Your task to perform on an android device: toggle sleep mode Image 0: 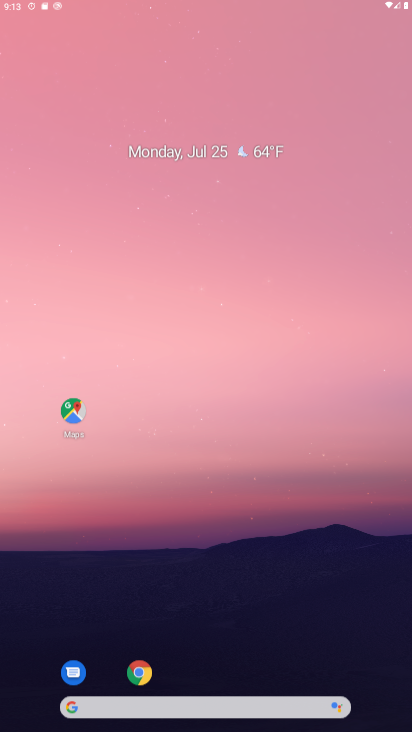
Step 0: press home button
Your task to perform on an android device: toggle sleep mode Image 1: 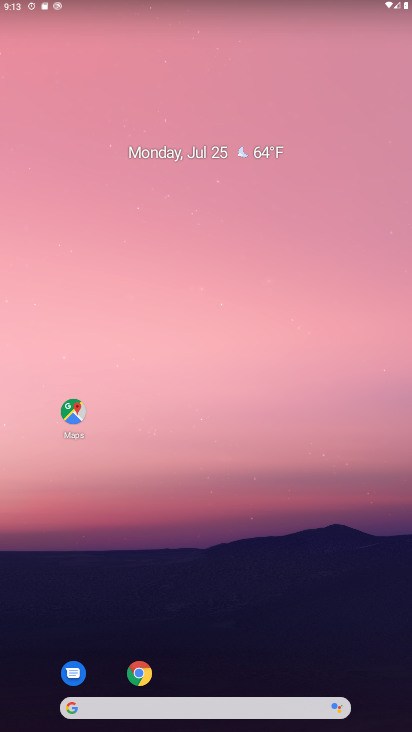
Step 1: drag from (228, 676) to (290, 7)
Your task to perform on an android device: toggle sleep mode Image 2: 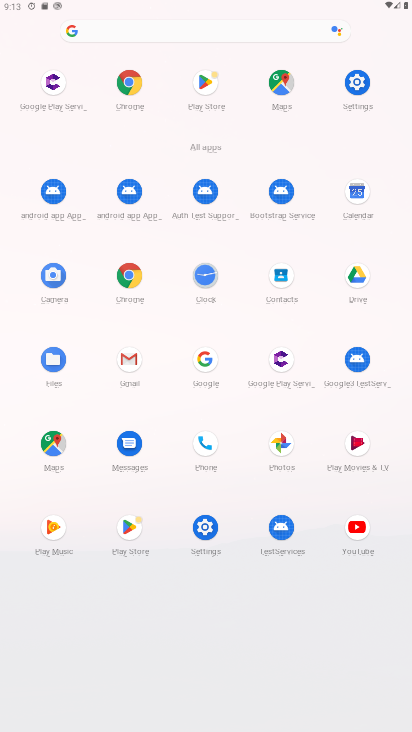
Step 2: click (361, 79)
Your task to perform on an android device: toggle sleep mode Image 3: 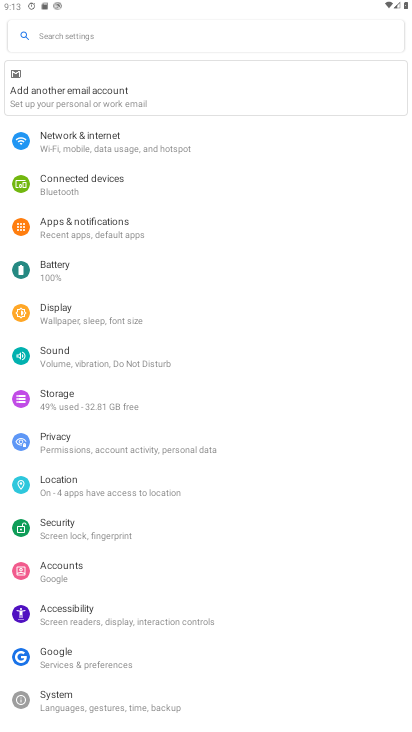
Step 3: click (77, 315)
Your task to perform on an android device: toggle sleep mode Image 4: 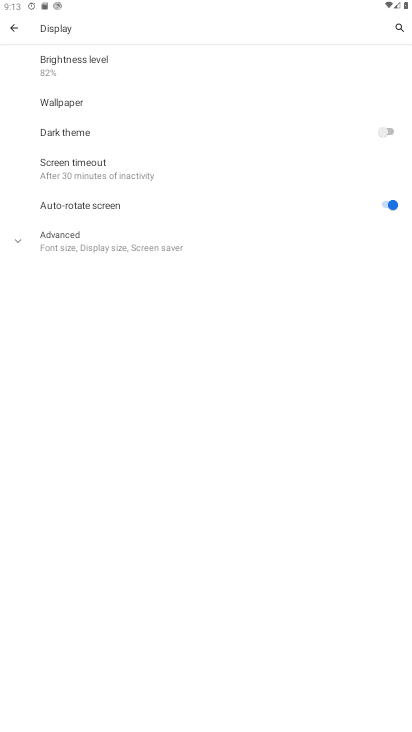
Step 4: click (21, 242)
Your task to perform on an android device: toggle sleep mode Image 5: 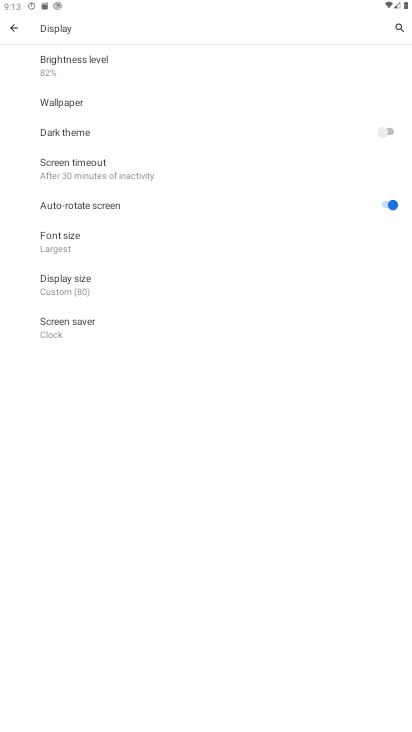
Step 5: task complete